Your task to perform on an android device: Open eBay Image 0: 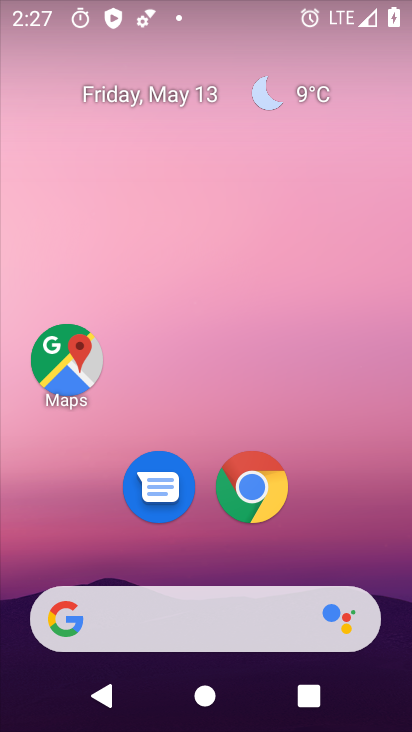
Step 0: drag from (203, 535) to (233, 78)
Your task to perform on an android device: Open eBay Image 1: 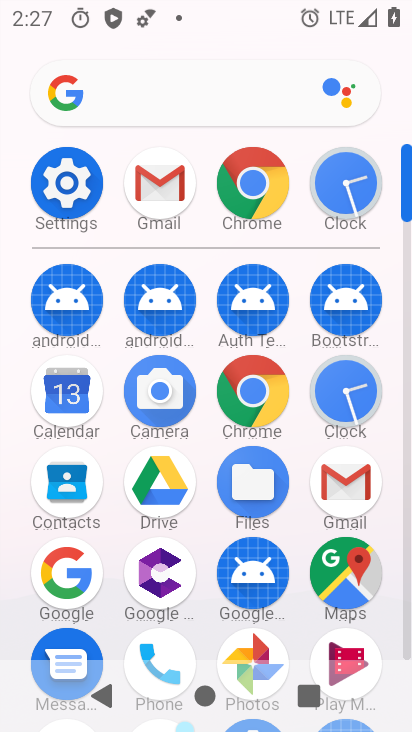
Step 1: click (67, 571)
Your task to perform on an android device: Open eBay Image 2: 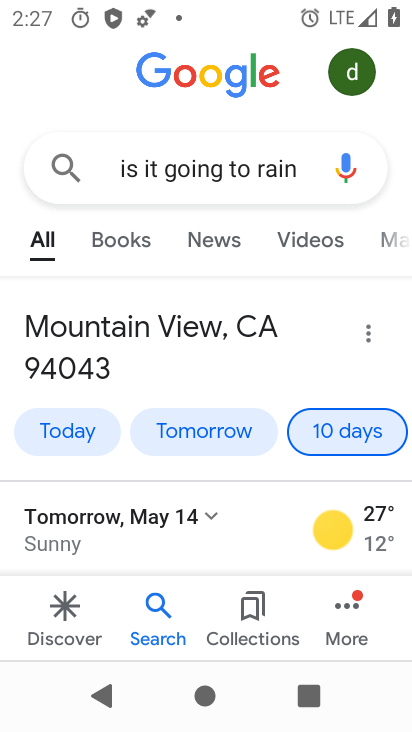
Step 2: click (242, 174)
Your task to perform on an android device: Open eBay Image 3: 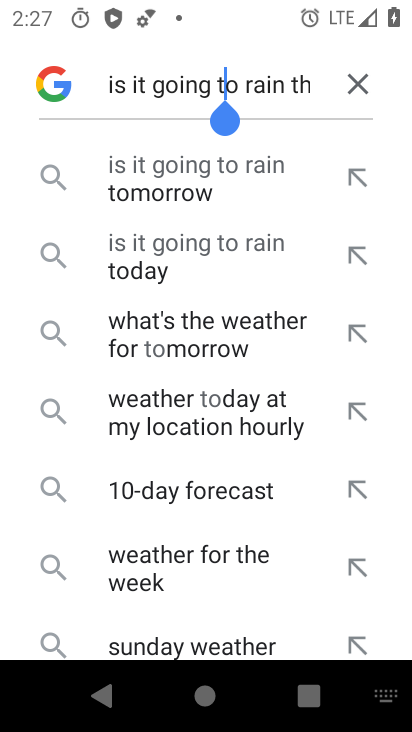
Step 3: click (356, 85)
Your task to perform on an android device: Open eBay Image 4: 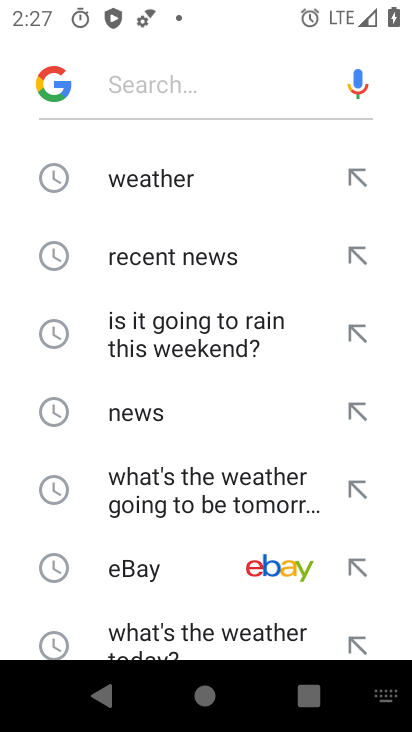
Step 4: click (166, 571)
Your task to perform on an android device: Open eBay Image 5: 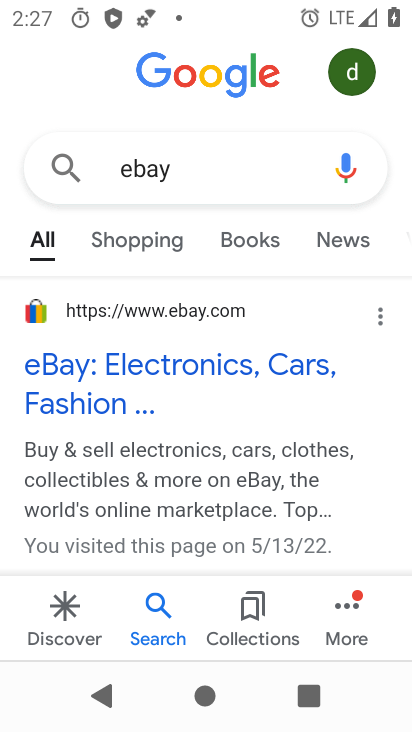
Step 5: task complete